Your task to perform on an android device: check google app version Image 0: 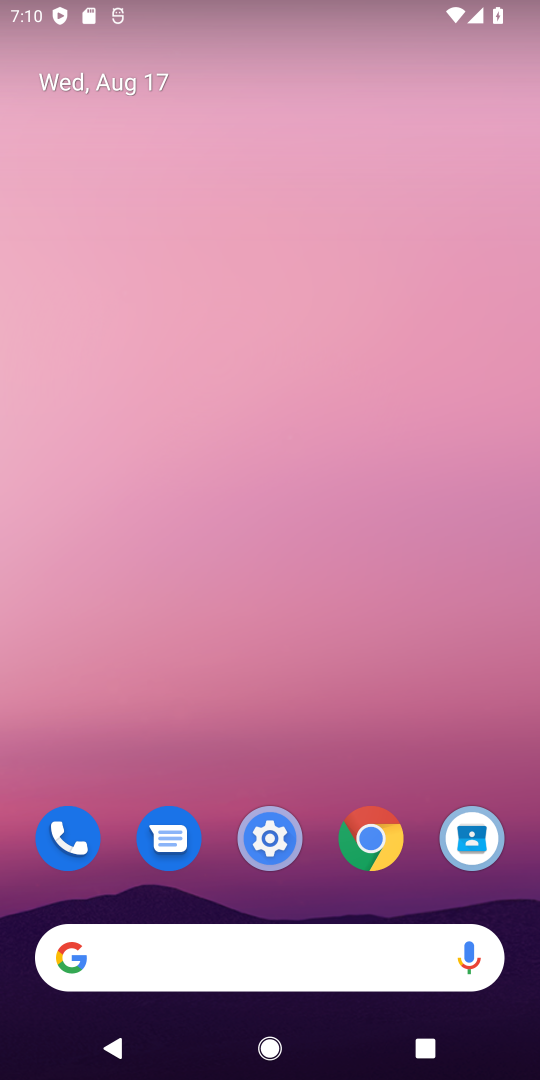
Step 0: drag from (330, 1061) to (325, 297)
Your task to perform on an android device: check google app version Image 1: 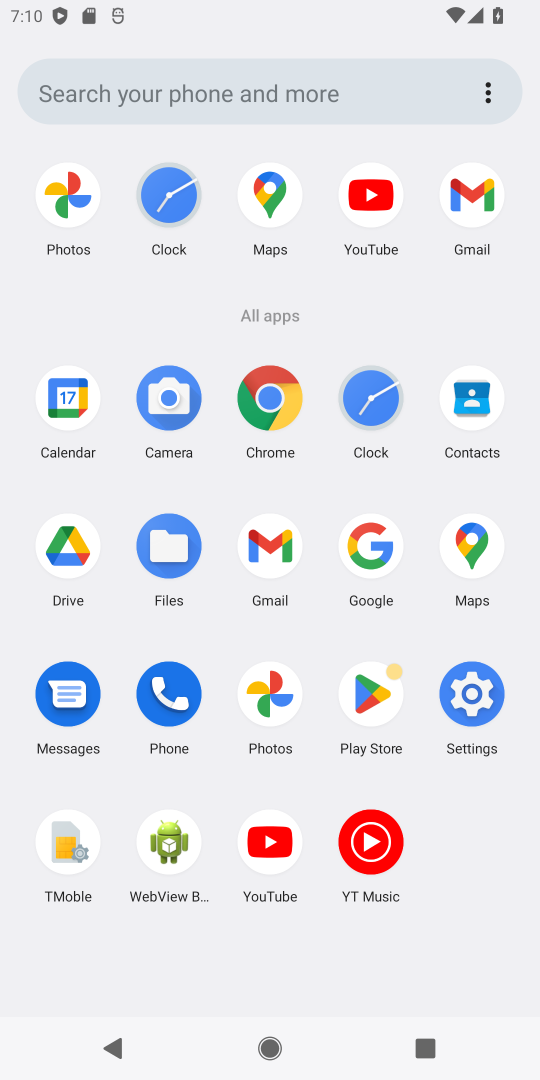
Step 1: click (389, 543)
Your task to perform on an android device: check google app version Image 2: 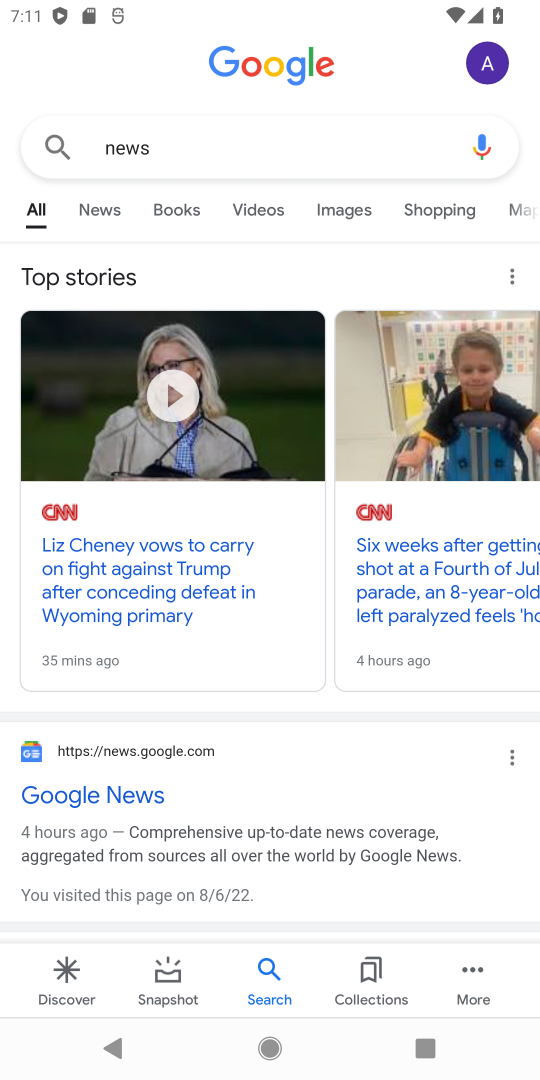
Step 2: click (482, 63)
Your task to perform on an android device: check google app version Image 3: 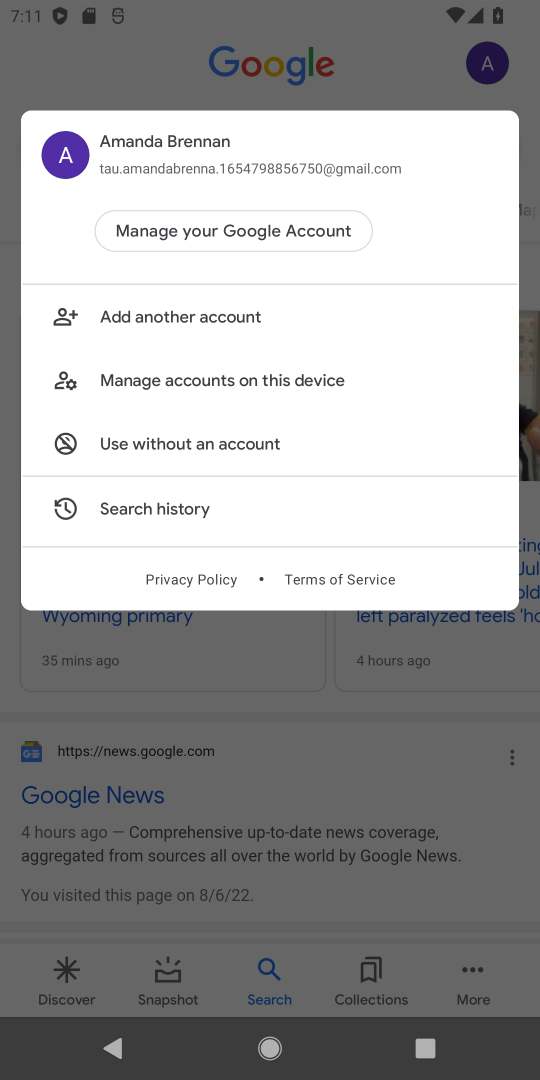
Step 3: click (233, 724)
Your task to perform on an android device: check google app version Image 4: 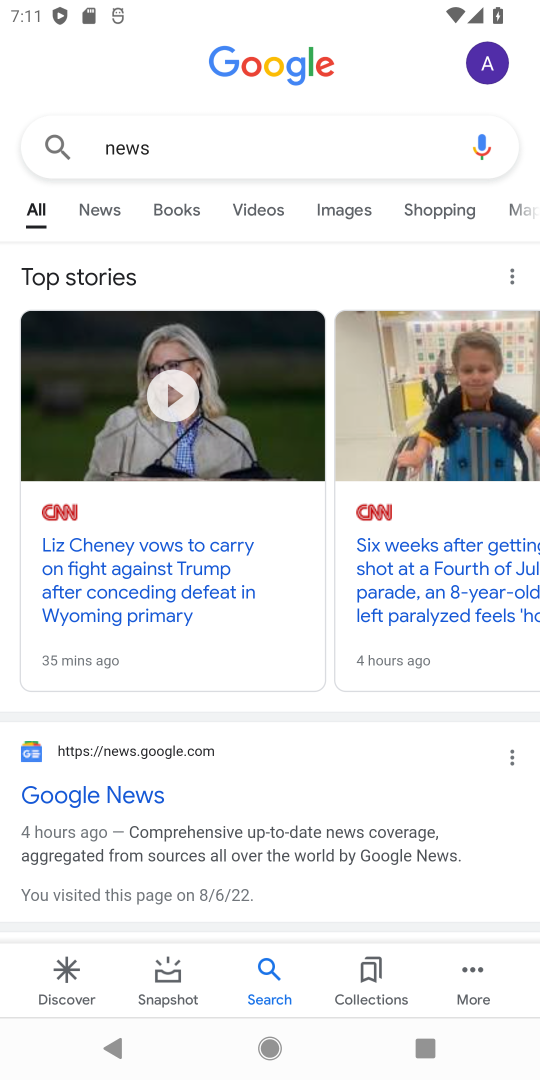
Step 4: click (491, 992)
Your task to perform on an android device: check google app version Image 5: 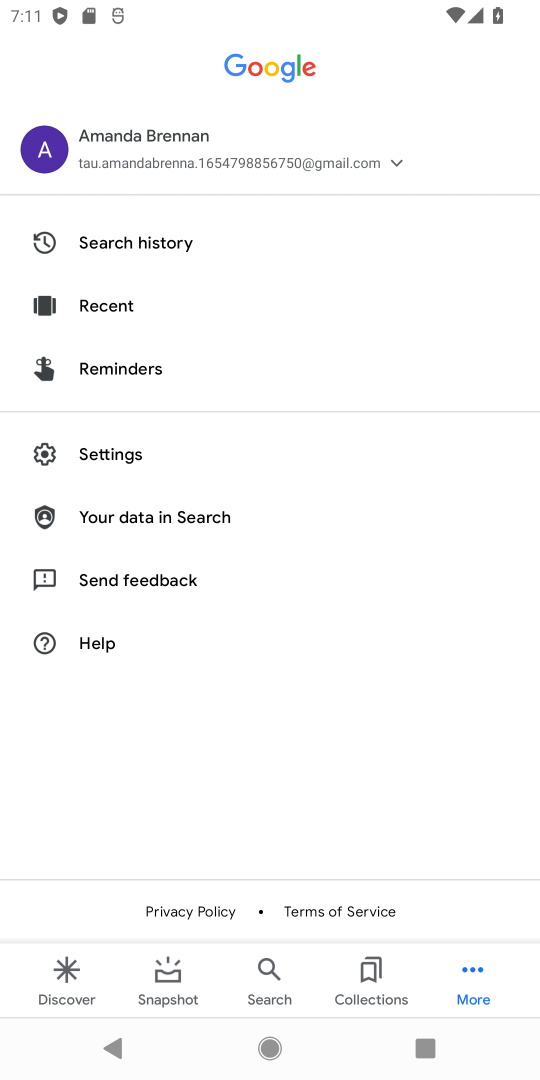
Step 5: click (90, 444)
Your task to perform on an android device: check google app version Image 6: 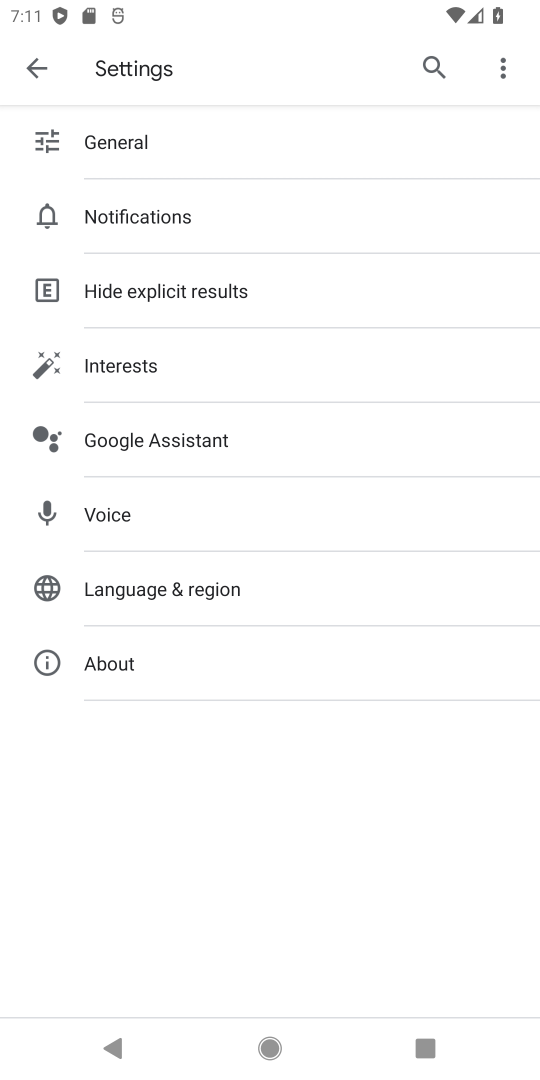
Step 6: click (178, 662)
Your task to perform on an android device: check google app version Image 7: 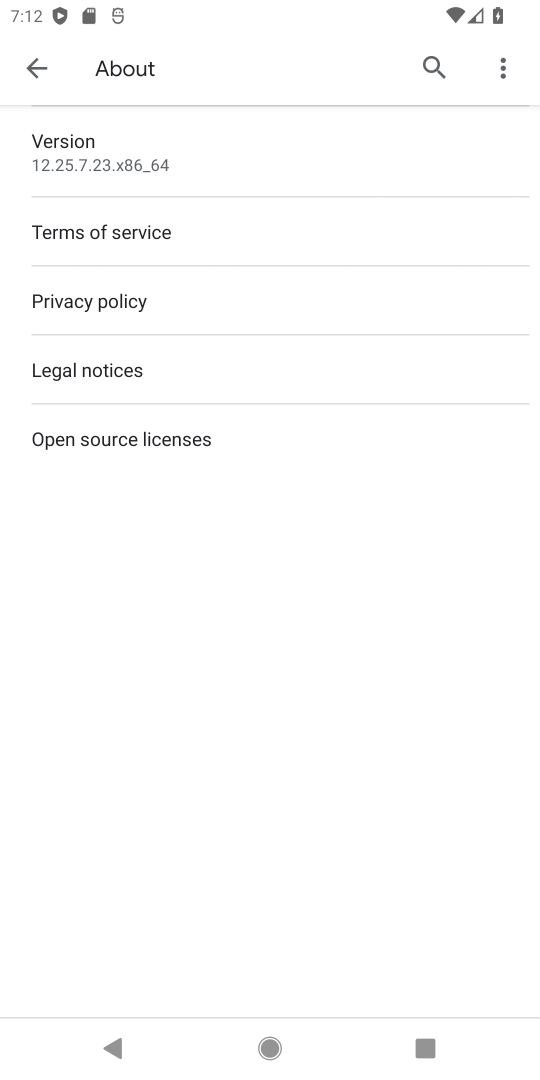
Step 7: click (154, 153)
Your task to perform on an android device: check google app version Image 8: 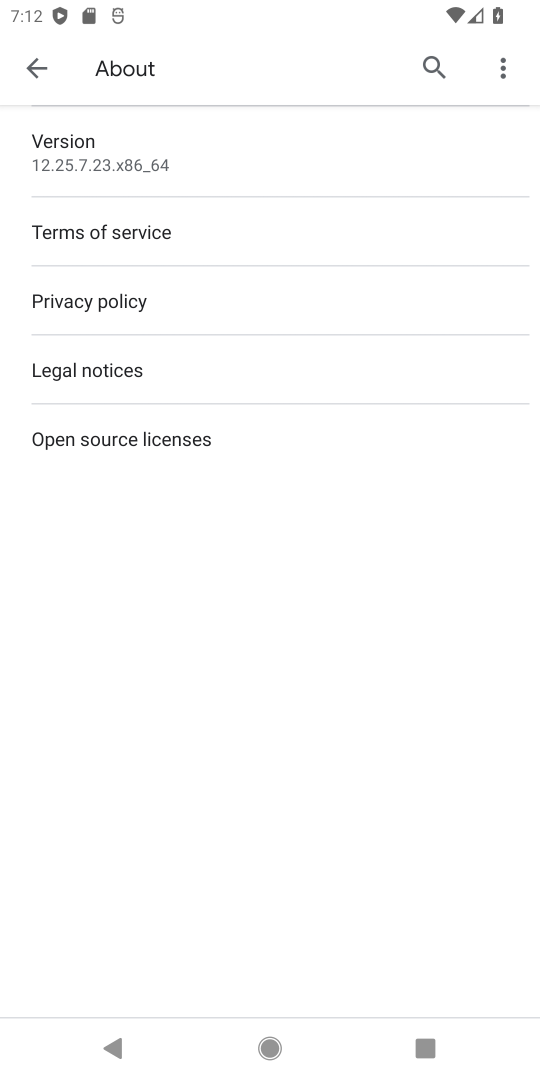
Step 8: task complete